Your task to perform on an android device: Open the stopwatch Image 0: 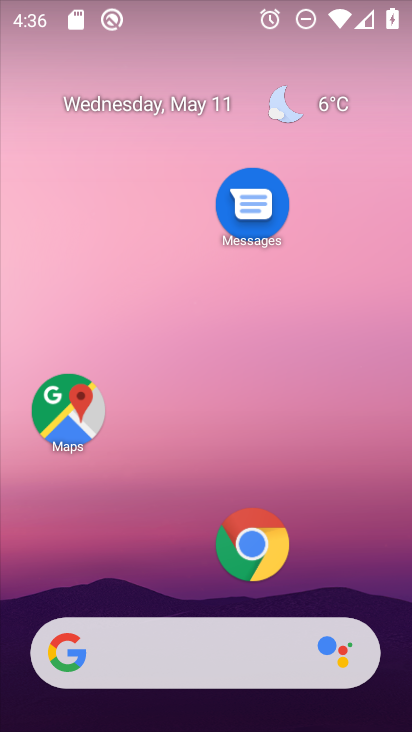
Step 0: drag from (126, 506) to (227, 126)
Your task to perform on an android device: Open the stopwatch Image 1: 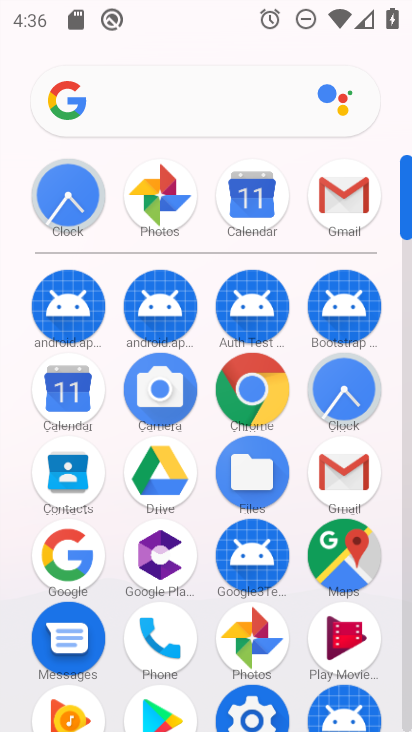
Step 1: click (348, 377)
Your task to perform on an android device: Open the stopwatch Image 2: 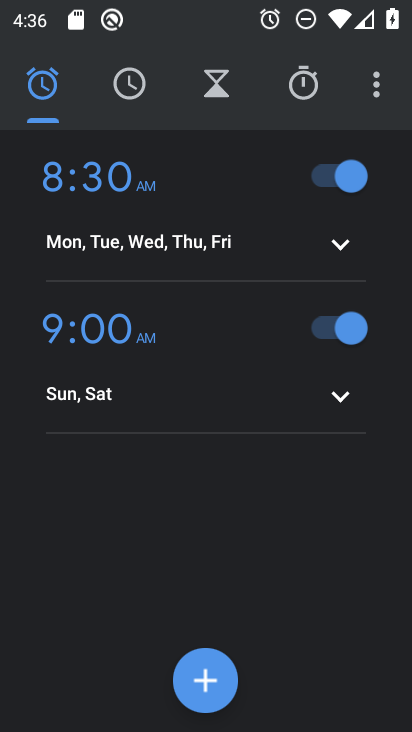
Step 2: press back button
Your task to perform on an android device: Open the stopwatch Image 3: 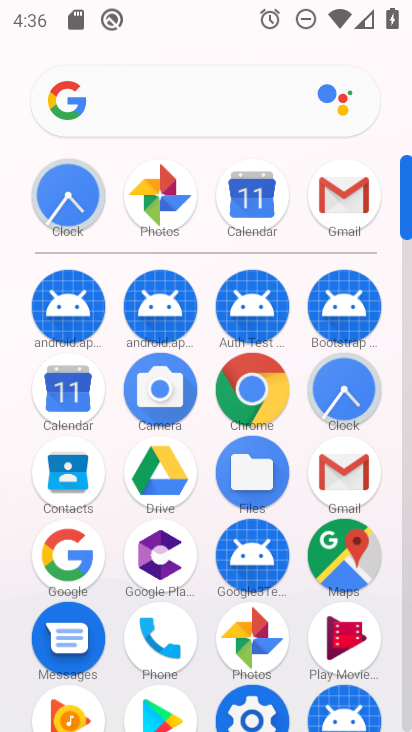
Step 3: click (341, 392)
Your task to perform on an android device: Open the stopwatch Image 4: 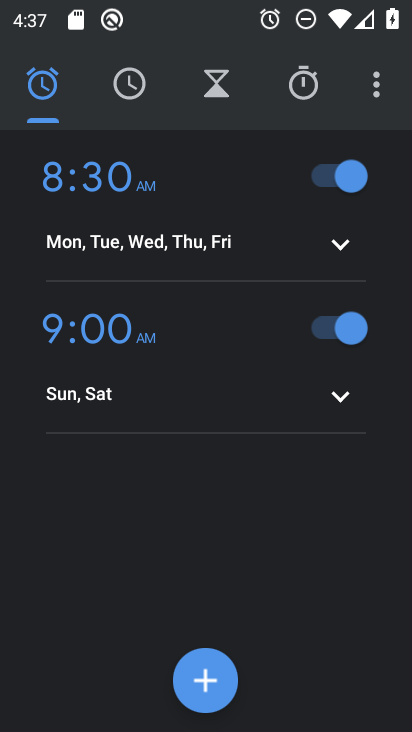
Step 4: click (296, 86)
Your task to perform on an android device: Open the stopwatch Image 5: 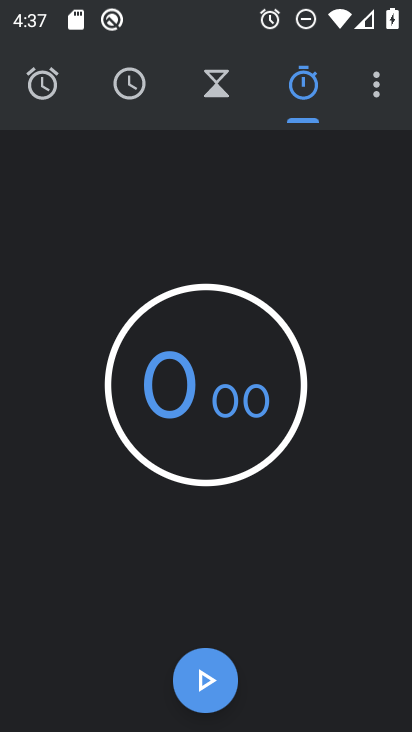
Step 5: task complete